Your task to perform on an android device: turn off smart reply in the gmail app Image 0: 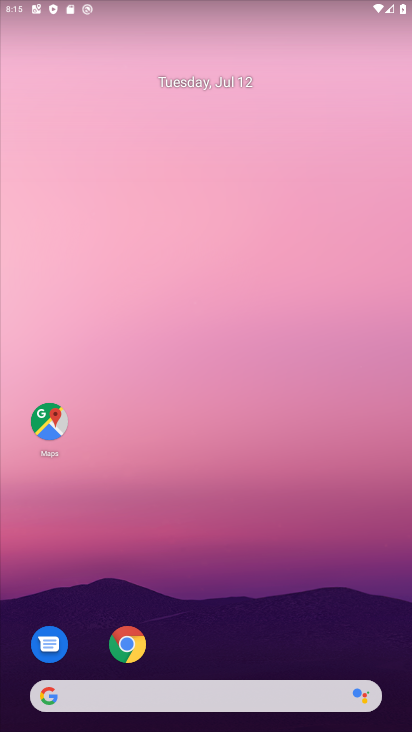
Step 0: drag from (210, 612) to (336, 124)
Your task to perform on an android device: turn off smart reply in the gmail app Image 1: 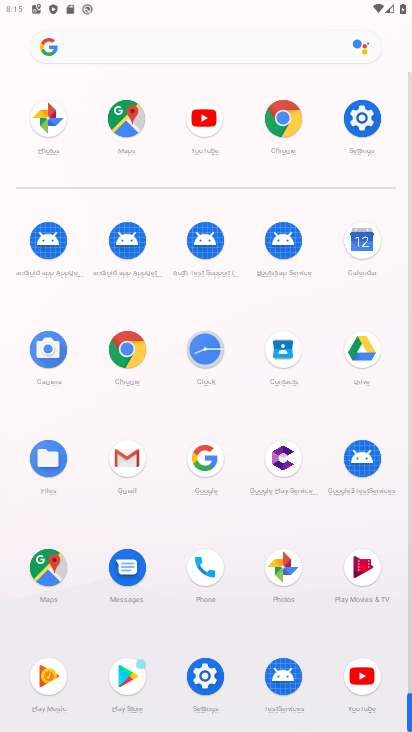
Step 1: click (110, 452)
Your task to perform on an android device: turn off smart reply in the gmail app Image 2: 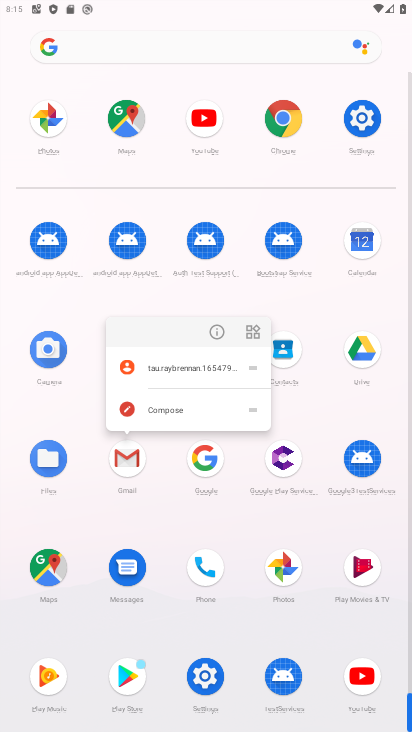
Step 2: click (221, 331)
Your task to perform on an android device: turn off smart reply in the gmail app Image 3: 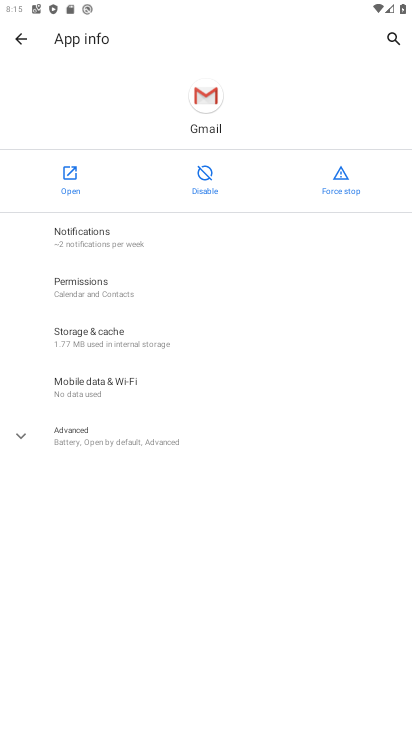
Step 3: click (77, 187)
Your task to perform on an android device: turn off smart reply in the gmail app Image 4: 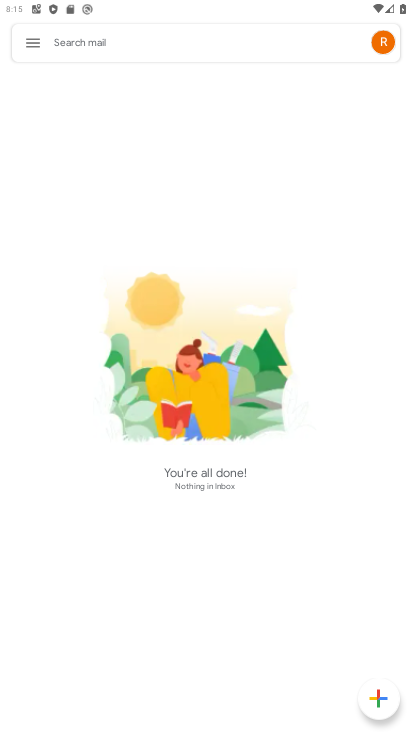
Step 4: drag from (203, 518) to (237, 346)
Your task to perform on an android device: turn off smart reply in the gmail app Image 5: 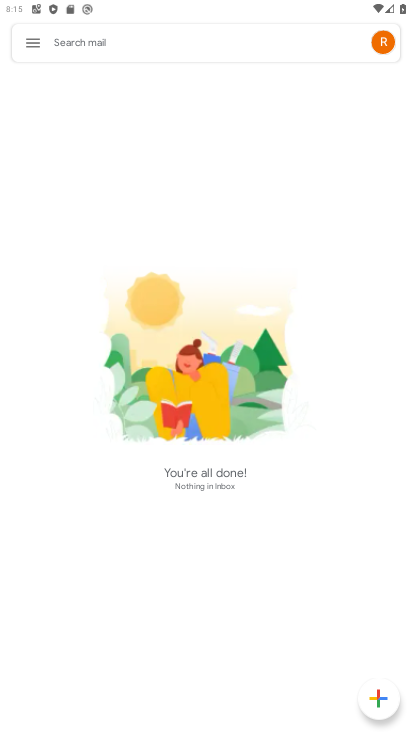
Step 5: click (34, 33)
Your task to perform on an android device: turn off smart reply in the gmail app Image 6: 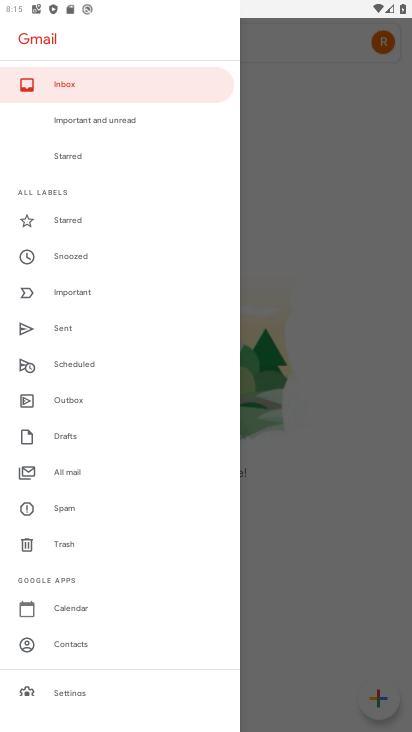
Step 6: click (65, 693)
Your task to perform on an android device: turn off smart reply in the gmail app Image 7: 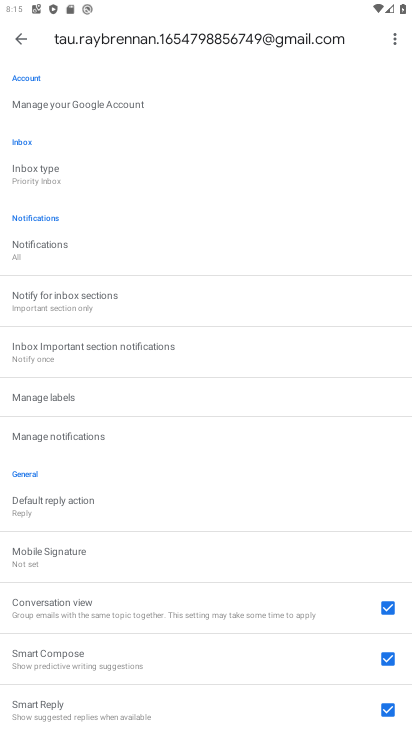
Step 7: drag from (176, 549) to (248, 197)
Your task to perform on an android device: turn off smart reply in the gmail app Image 8: 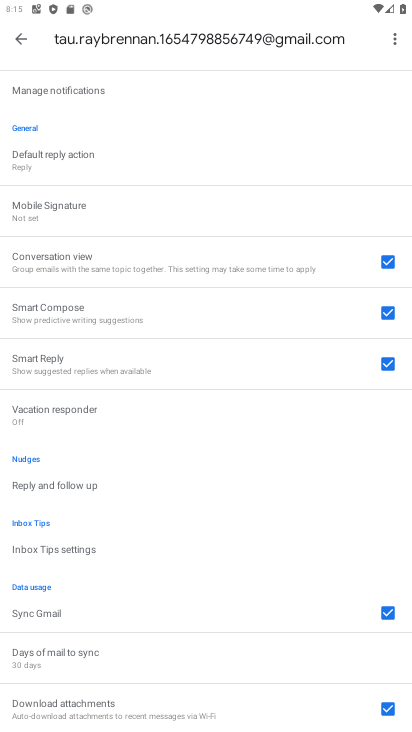
Step 8: click (384, 361)
Your task to perform on an android device: turn off smart reply in the gmail app Image 9: 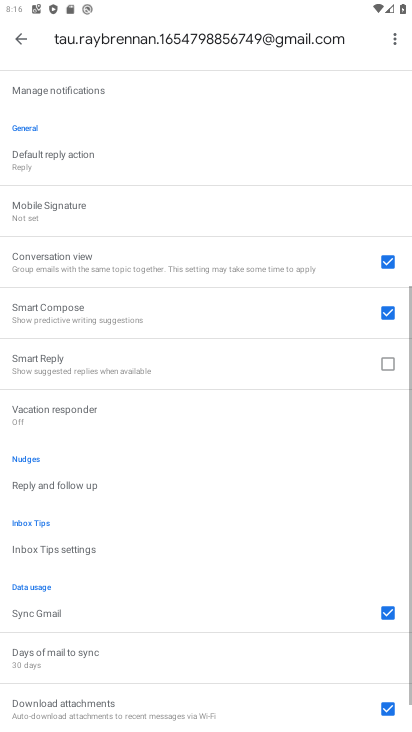
Step 9: task complete